Your task to perform on an android device: open a new tab in the chrome app Image 0: 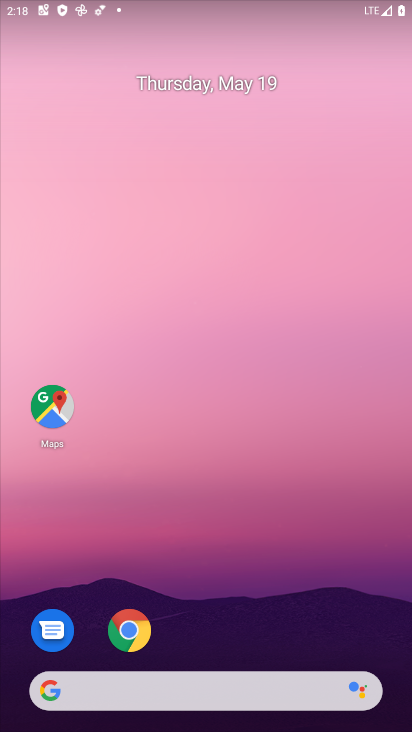
Step 0: click (131, 631)
Your task to perform on an android device: open a new tab in the chrome app Image 1: 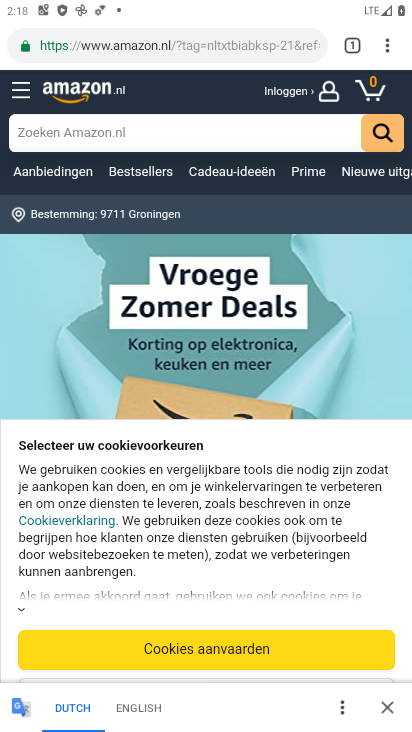
Step 1: click (386, 45)
Your task to perform on an android device: open a new tab in the chrome app Image 2: 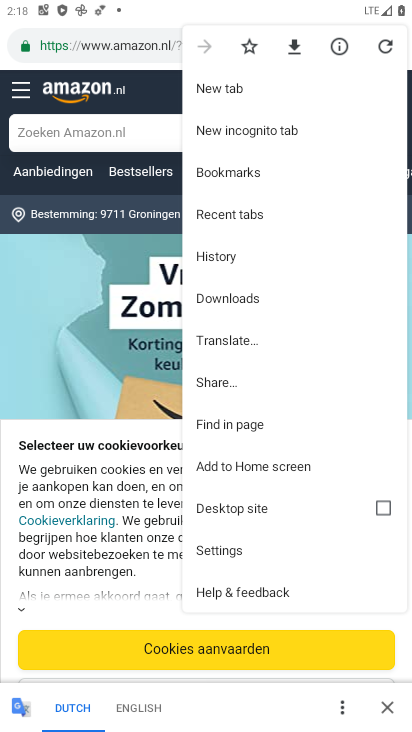
Step 2: click (218, 89)
Your task to perform on an android device: open a new tab in the chrome app Image 3: 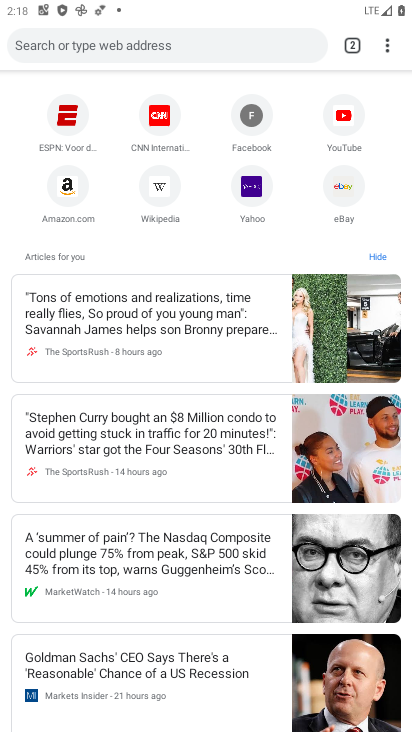
Step 3: task complete